Your task to perform on an android device: turn off location Image 0: 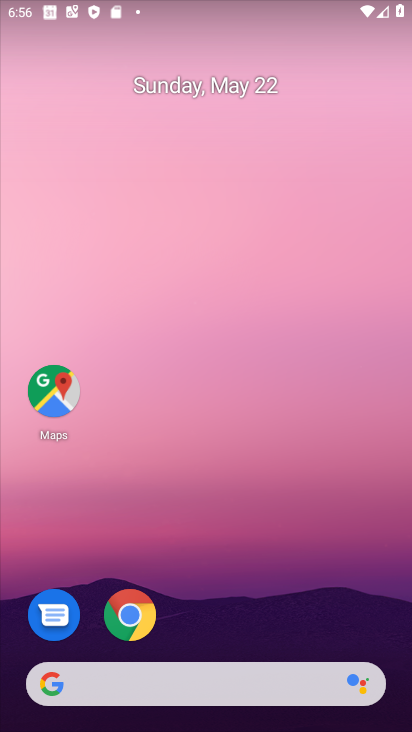
Step 0: drag from (247, 586) to (171, 61)
Your task to perform on an android device: turn off location Image 1: 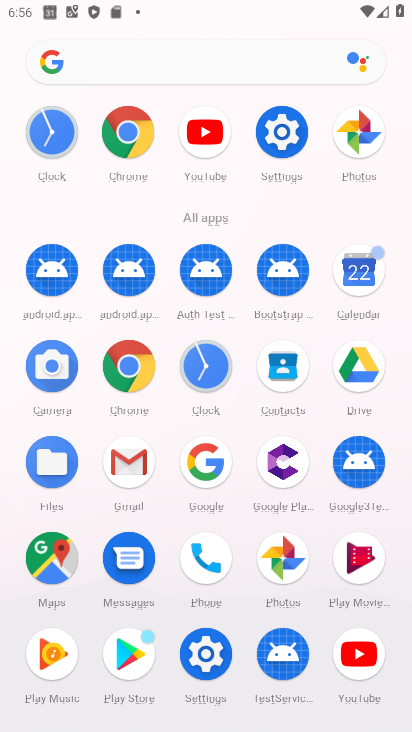
Step 1: click (277, 124)
Your task to perform on an android device: turn off location Image 2: 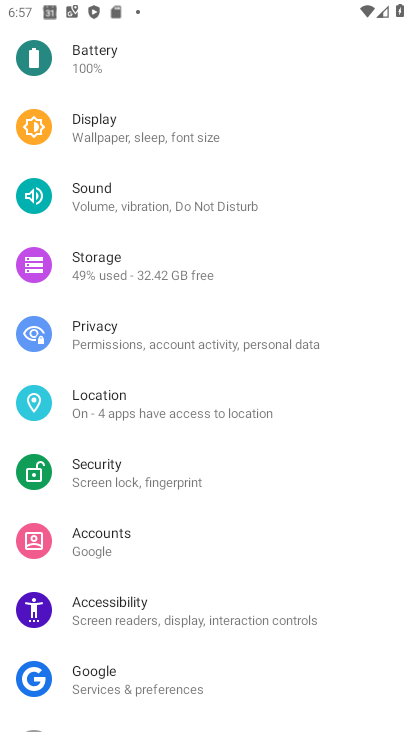
Step 2: click (111, 393)
Your task to perform on an android device: turn off location Image 3: 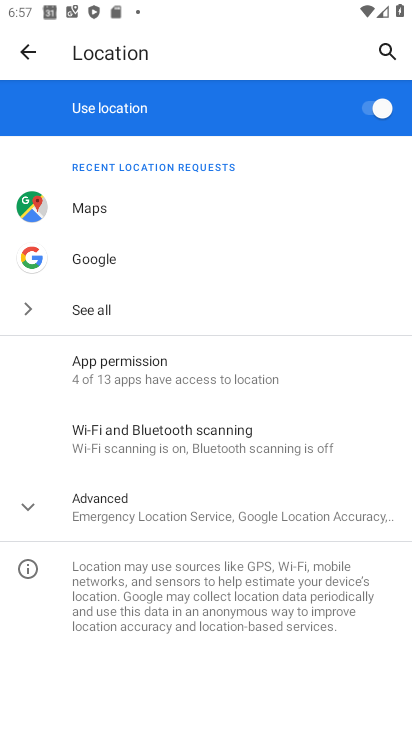
Step 3: click (376, 108)
Your task to perform on an android device: turn off location Image 4: 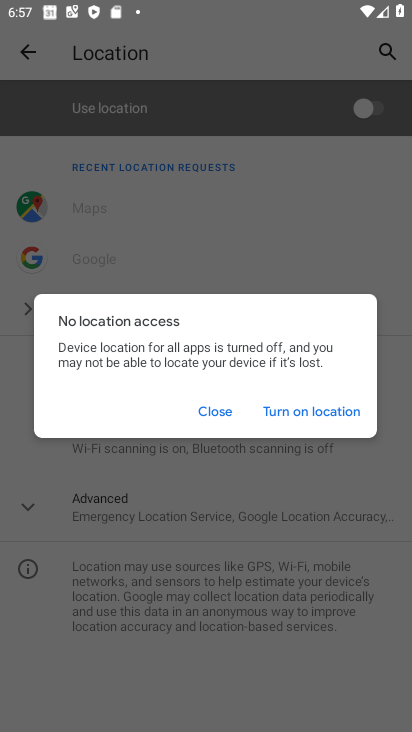
Step 4: click (212, 405)
Your task to perform on an android device: turn off location Image 5: 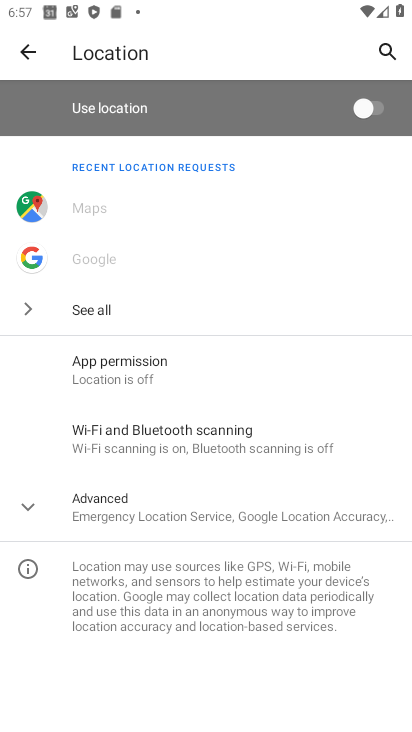
Step 5: task complete